Your task to perform on an android device: Open calendar and show me the second week of next month Image 0: 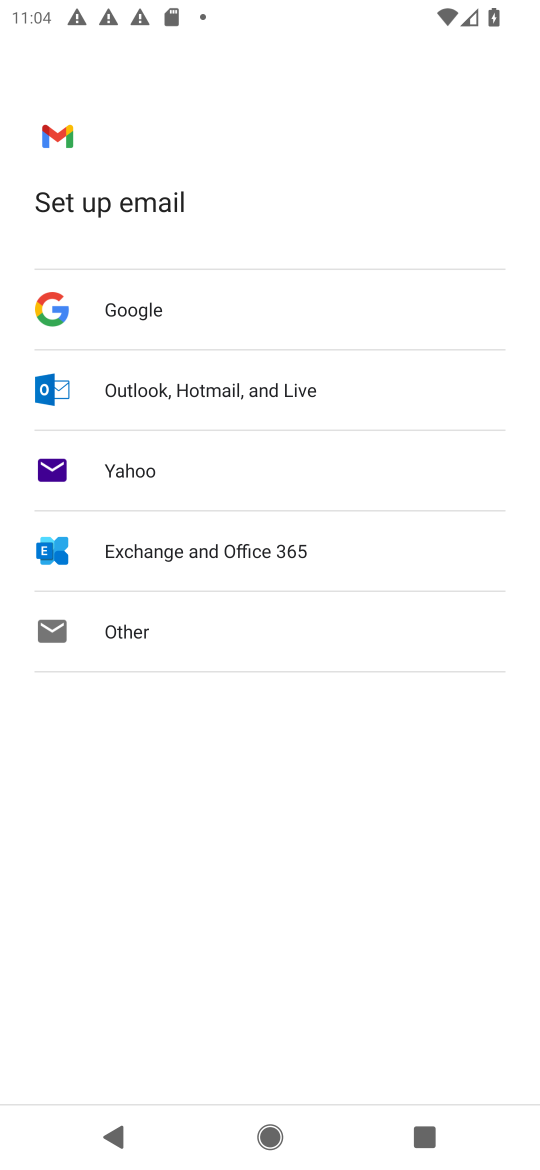
Step 0: press home button
Your task to perform on an android device: Open calendar and show me the second week of next month Image 1: 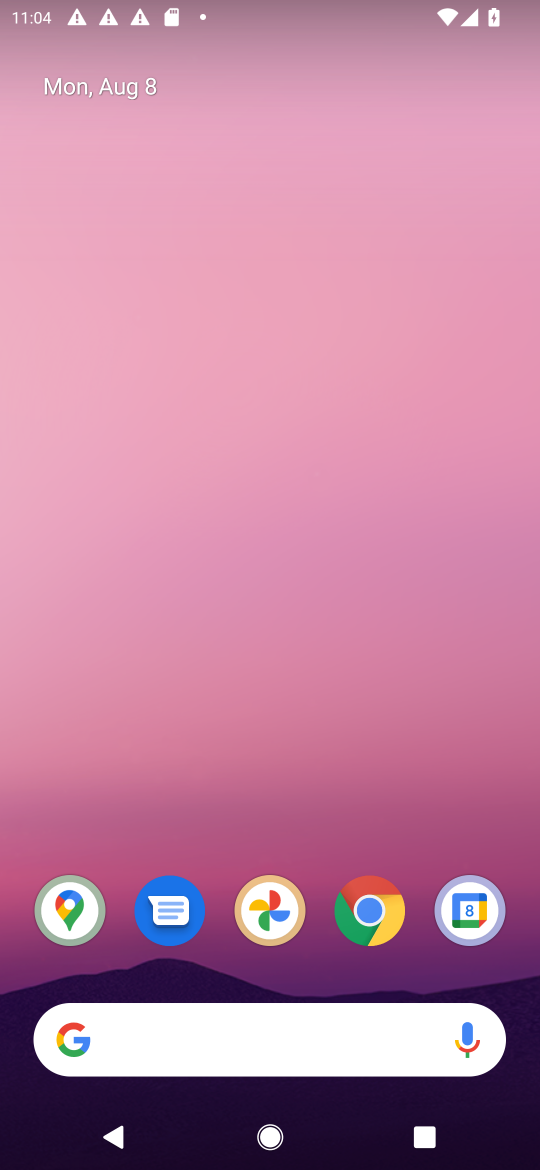
Step 1: drag from (225, 985) to (425, 6)
Your task to perform on an android device: Open calendar and show me the second week of next month Image 2: 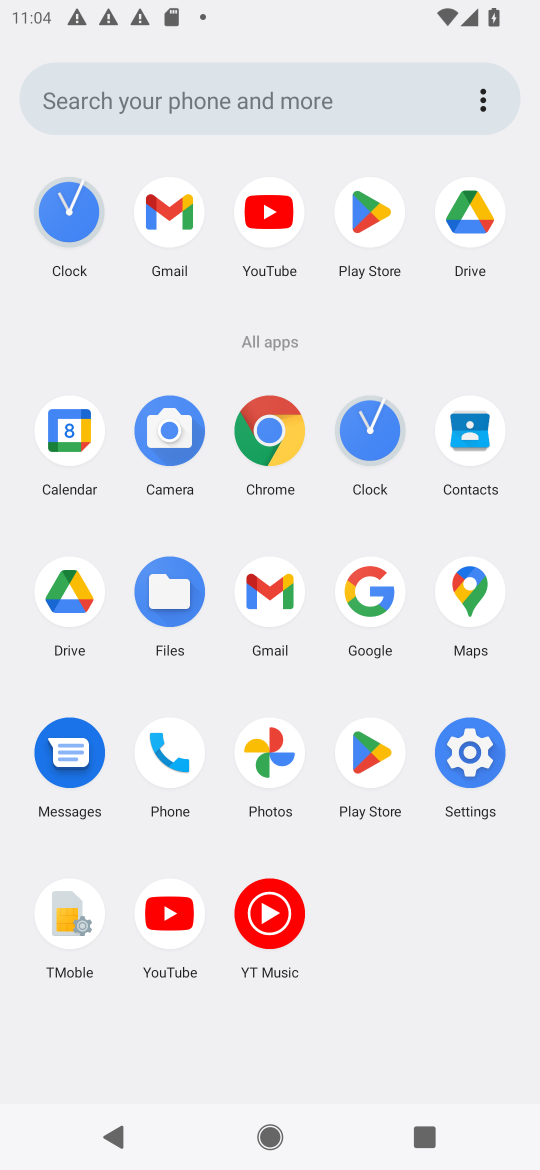
Step 2: drag from (476, 426) to (455, 249)
Your task to perform on an android device: Open calendar and show me the second week of next month Image 3: 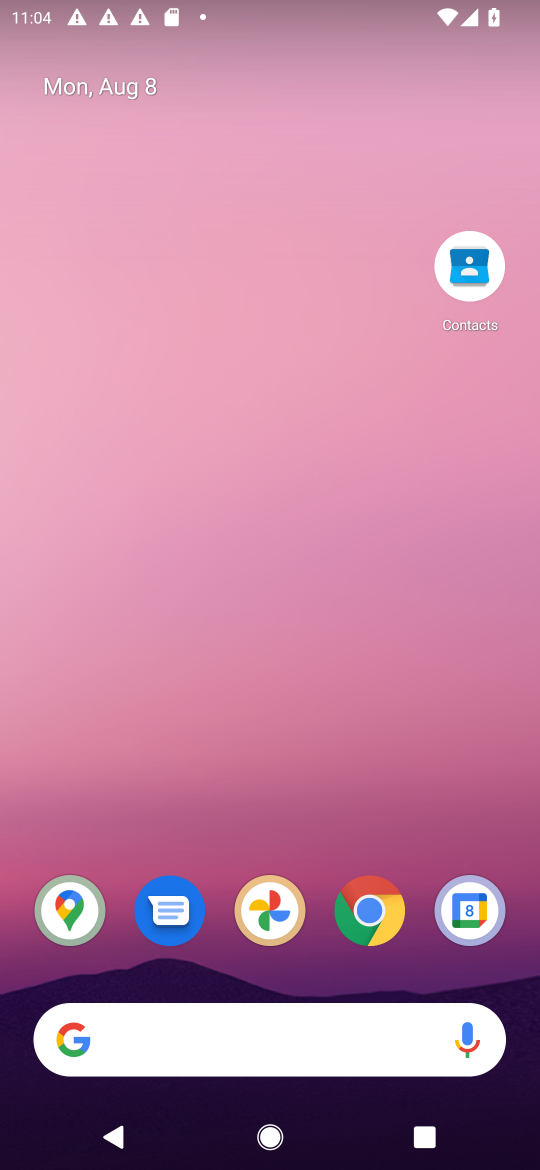
Step 3: drag from (269, 976) to (251, 287)
Your task to perform on an android device: Open calendar and show me the second week of next month Image 4: 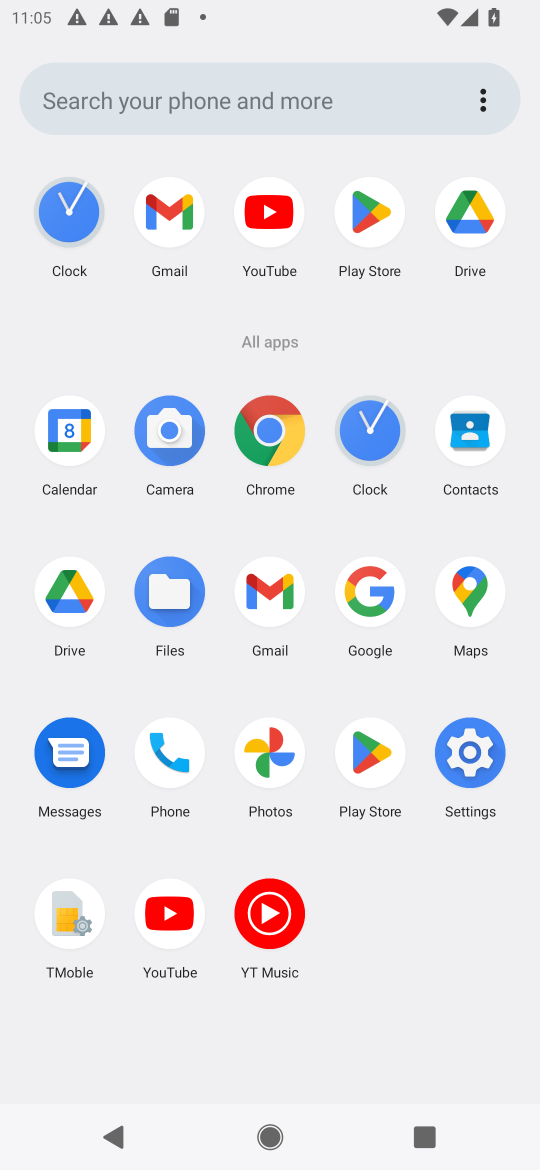
Step 4: click (74, 465)
Your task to perform on an android device: Open calendar and show me the second week of next month Image 5: 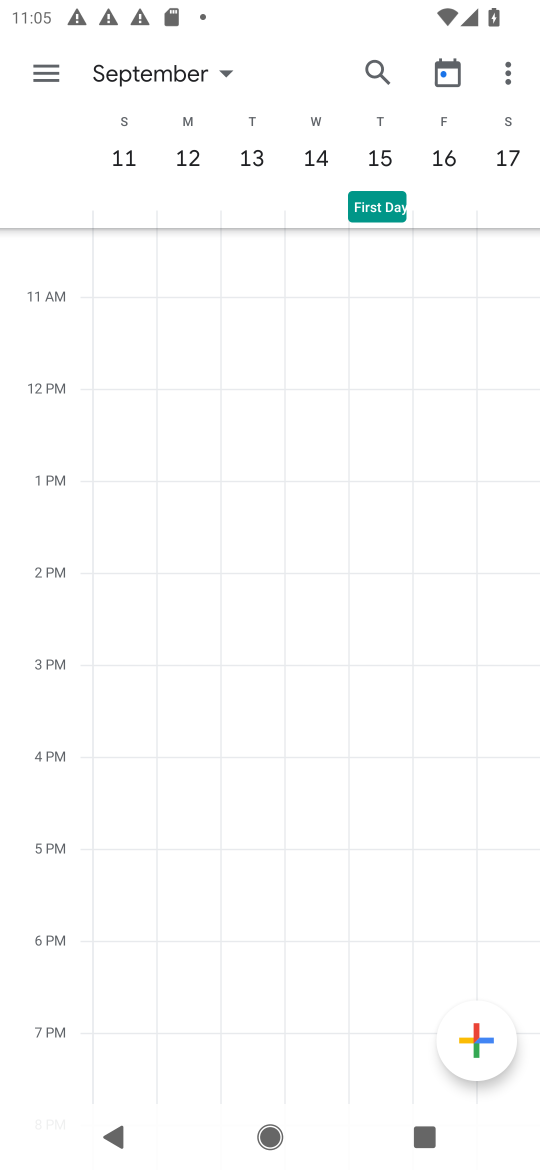
Step 5: task complete